Your task to perform on an android device: Search for sushi restaurants on Maps Image 0: 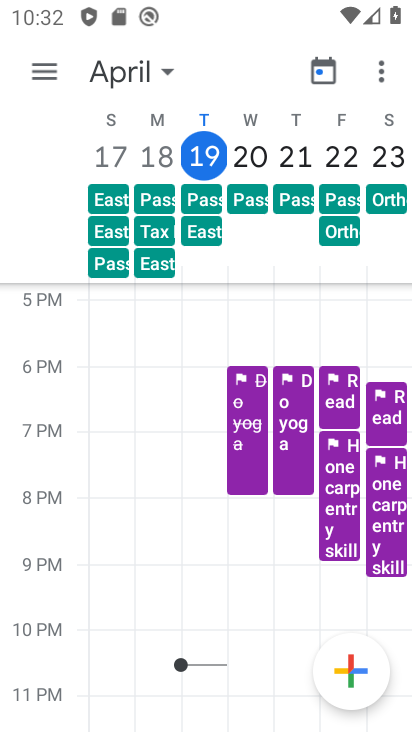
Step 0: press home button
Your task to perform on an android device: Search for sushi restaurants on Maps Image 1: 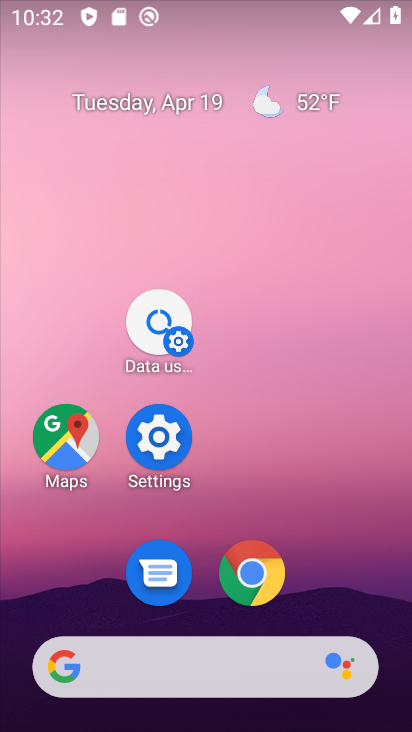
Step 1: click (72, 444)
Your task to perform on an android device: Search for sushi restaurants on Maps Image 2: 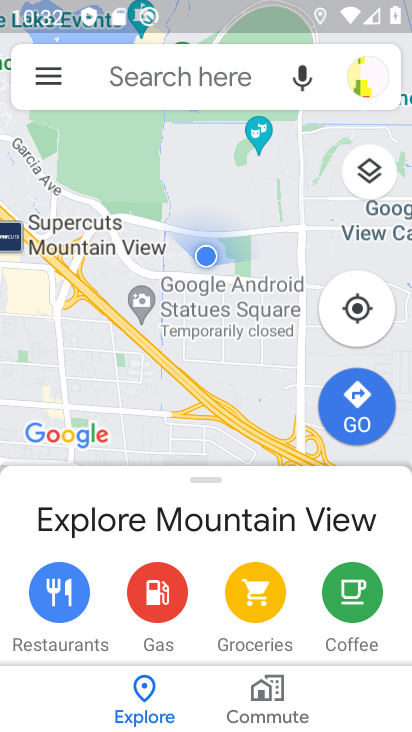
Step 2: click (130, 81)
Your task to perform on an android device: Search for sushi restaurants on Maps Image 3: 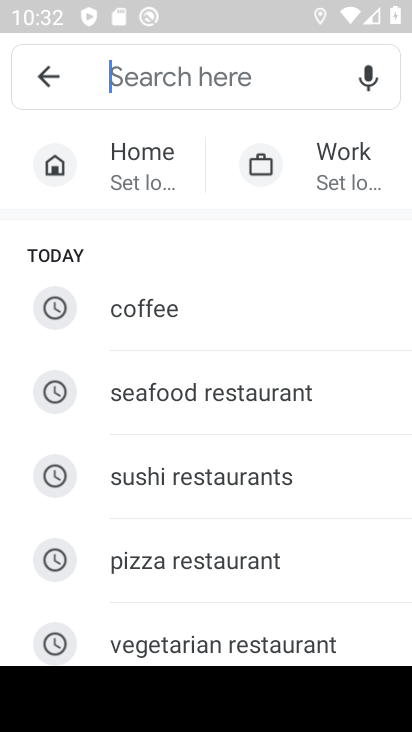
Step 3: type "sushi restaurant "
Your task to perform on an android device: Search for sushi restaurants on Maps Image 4: 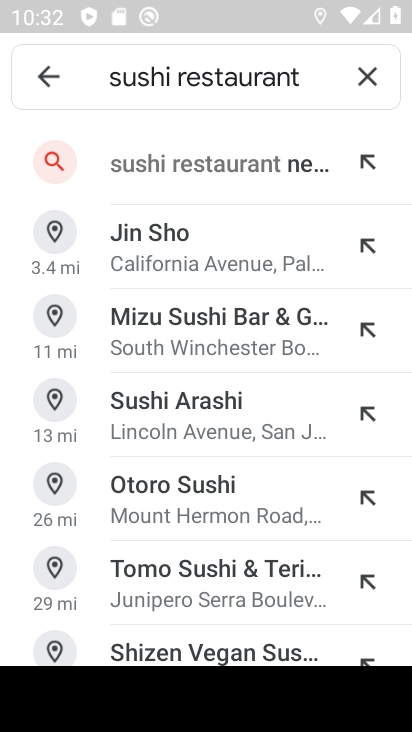
Step 4: click (178, 162)
Your task to perform on an android device: Search for sushi restaurants on Maps Image 5: 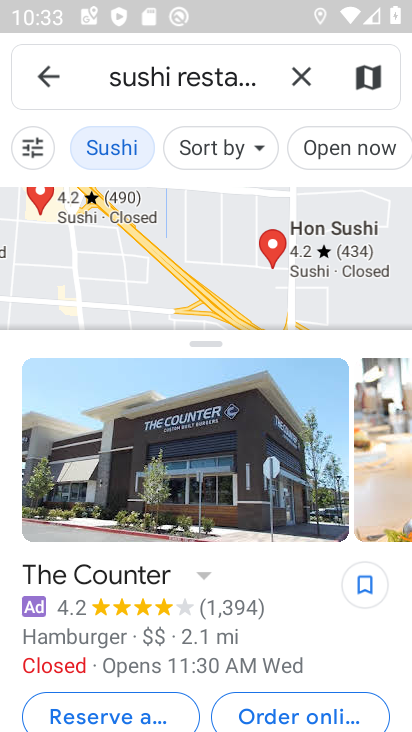
Step 5: task complete